Your task to perform on an android device: What's on my calendar today? Image 0: 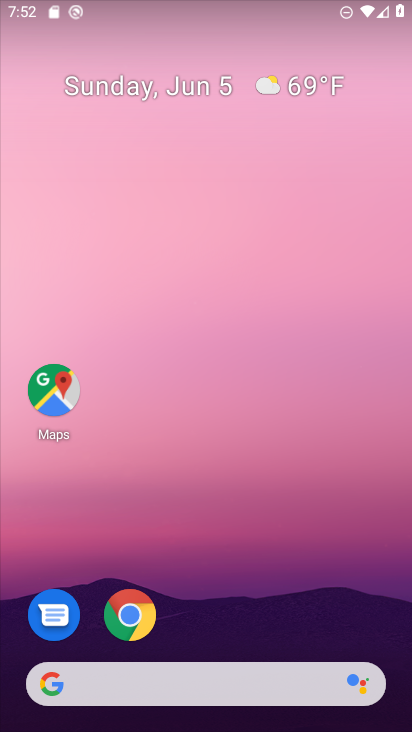
Step 0: drag from (225, 635) to (194, 137)
Your task to perform on an android device: What's on my calendar today? Image 1: 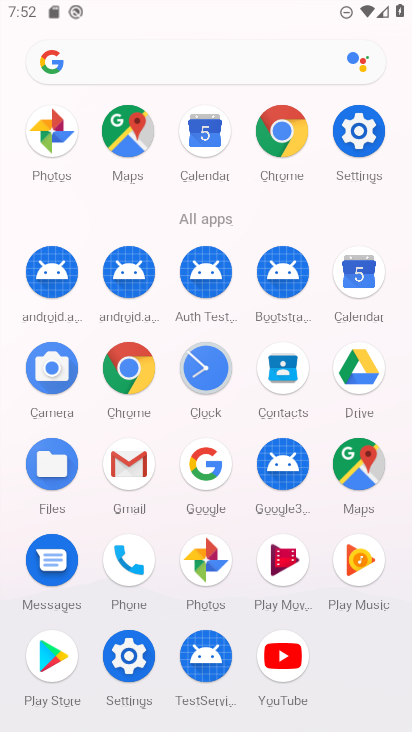
Step 1: click (360, 296)
Your task to perform on an android device: What's on my calendar today? Image 2: 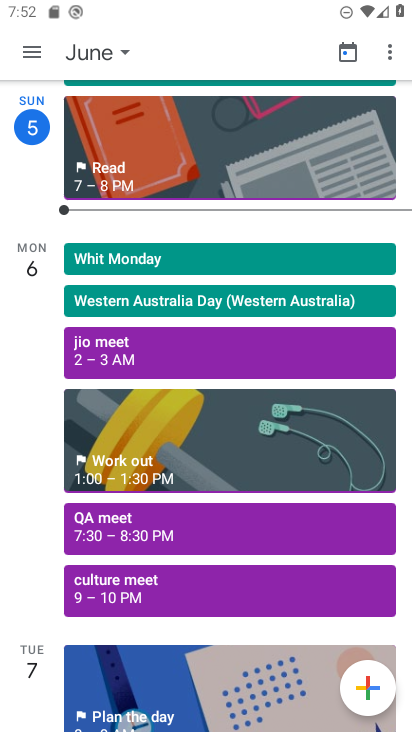
Step 2: task complete